Your task to perform on an android device: Search for seafood restaurants on Google Maps Image 0: 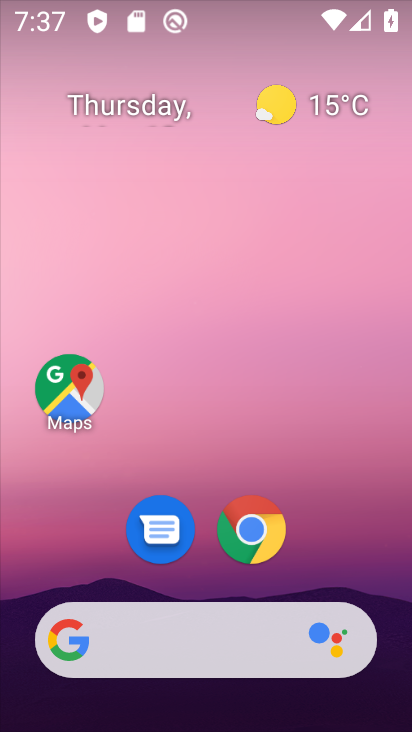
Step 0: click (48, 389)
Your task to perform on an android device: Search for seafood restaurants on Google Maps Image 1: 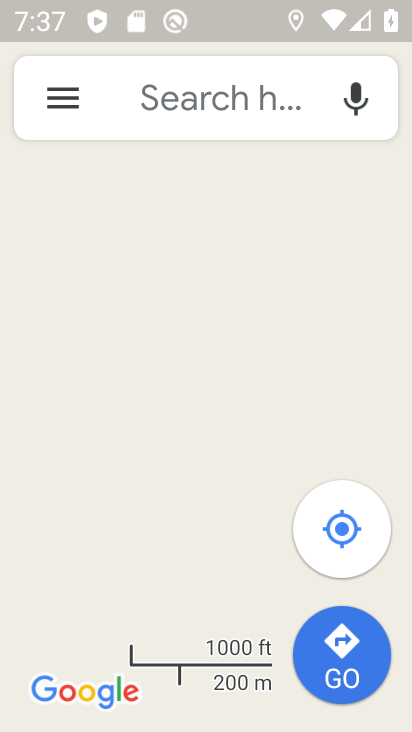
Step 1: click (162, 101)
Your task to perform on an android device: Search for seafood restaurants on Google Maps Image 2: 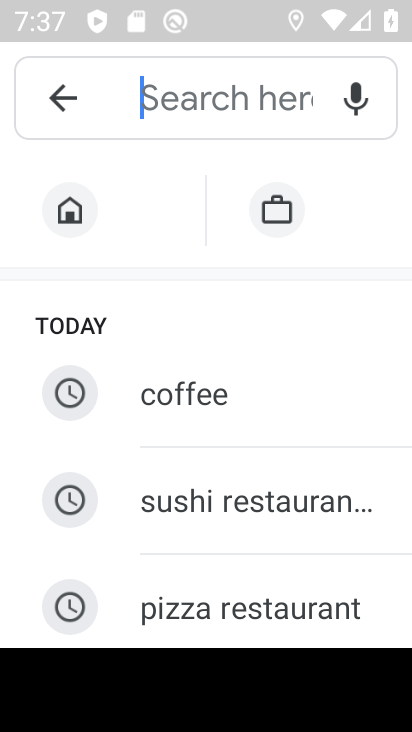
Step 2: type "seafood res"
Your task to perform on an android device: Search for seafood restaurants on Google Maps Image 3: 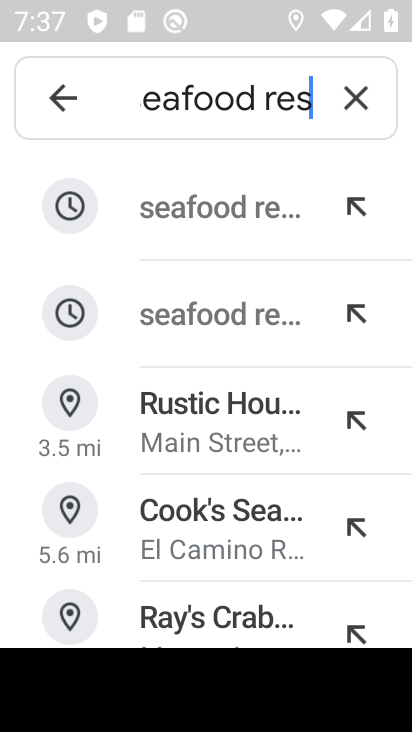
Step 3: click (279, 210)
Your task to perform on an android device: Search for seafood restaurants on Google Maps Image 4: 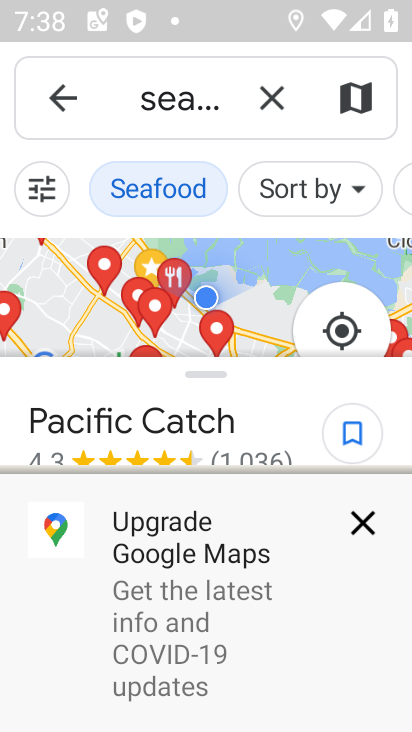
Step 4: task complete